Your task to perform on an android device: Open sound settings Image 0: 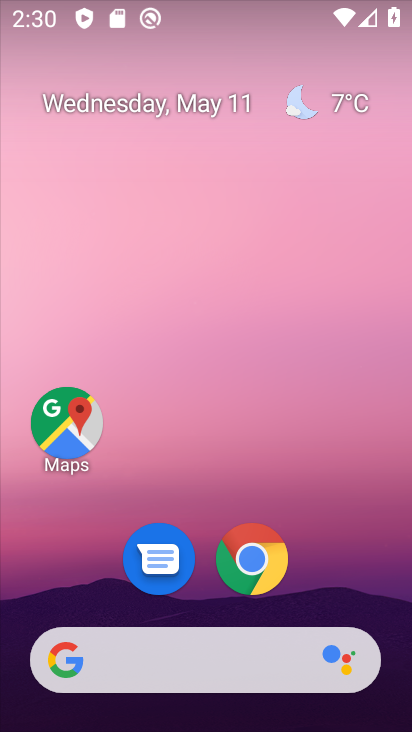
Step 0: drag from (377, 361) to (377, 113)
Your task to perform on an android device: Open sound settings Image 1: 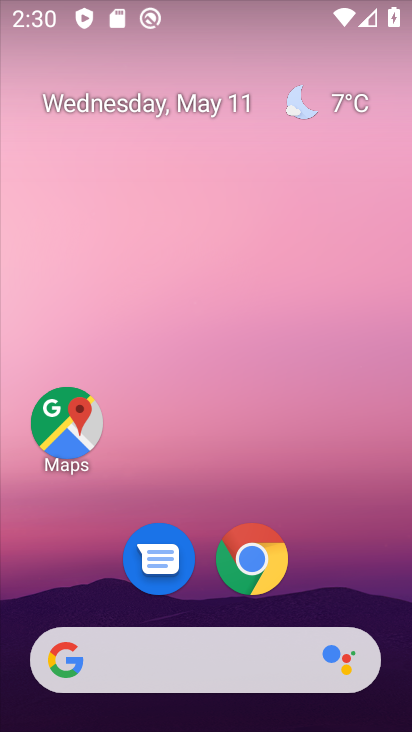
Step 1: drag from (369, 568) to (374, 101)
Your task to perform on an android device: Open sound settings Image 2: 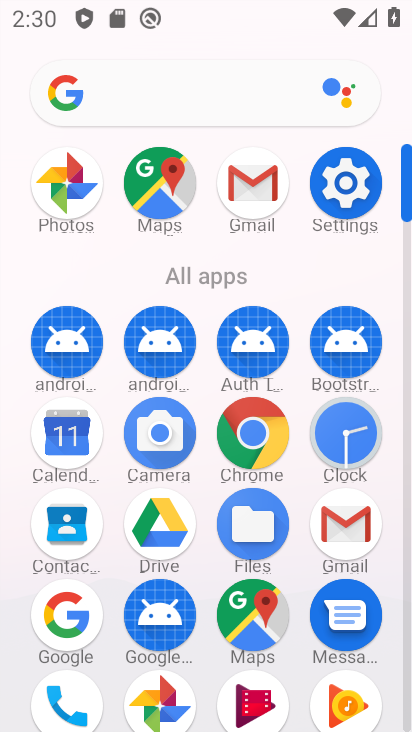
Step 2: click (340, 171)
Your task to perform on an android device: Open sound settings Image 3: 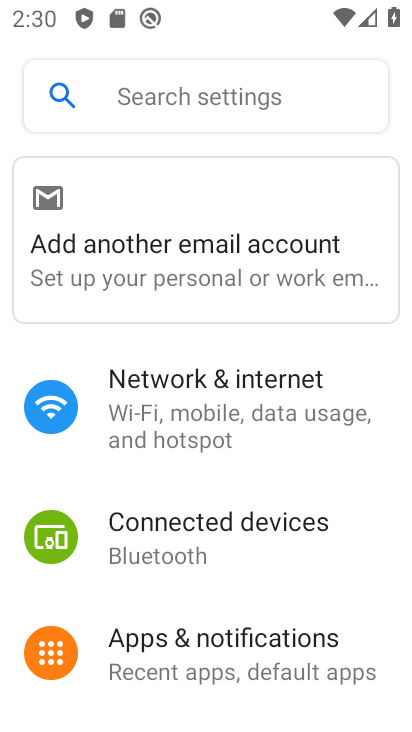
Step 3: drag from (221, 615) to (276, 258)
Your task to perform on an android device: Open sound settings Image 4: 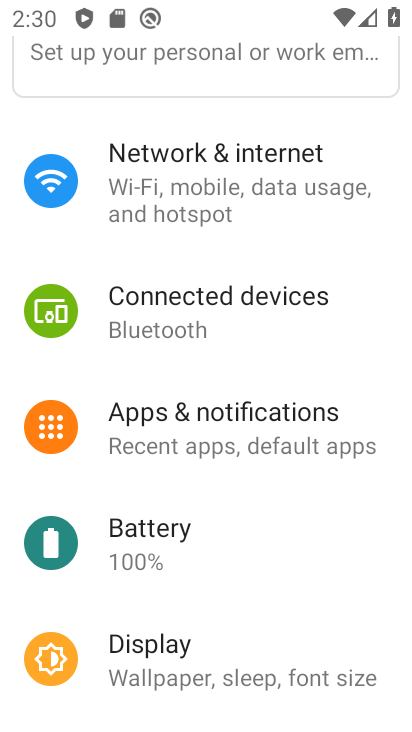
Step 4: drag from (253, 664) to (289, 344)
Your task to perform on an android device: Open sound settings Image 5: 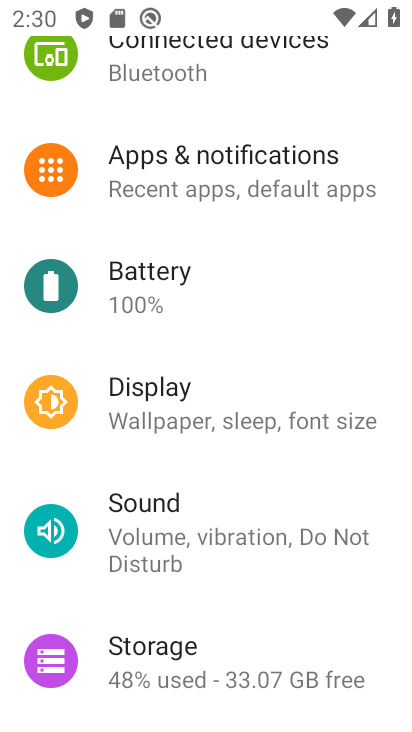
Step 5: click (147, 519)
Your task to perform on an android device: Open sound settings Image 6: 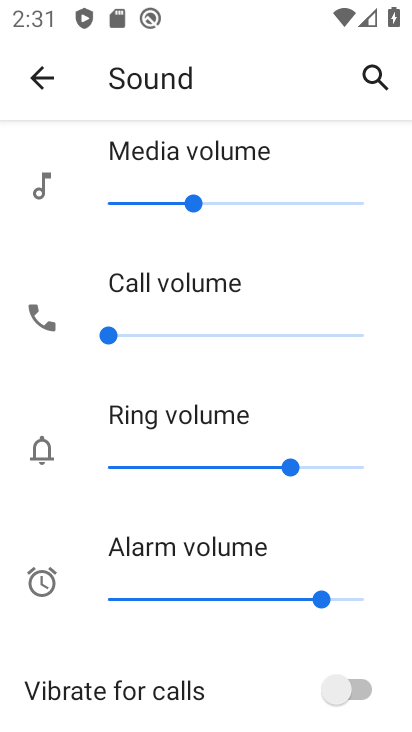
Step 6: task complete